Your task to perform on an android device: Search for pizza restaurants on Maps Image 0: 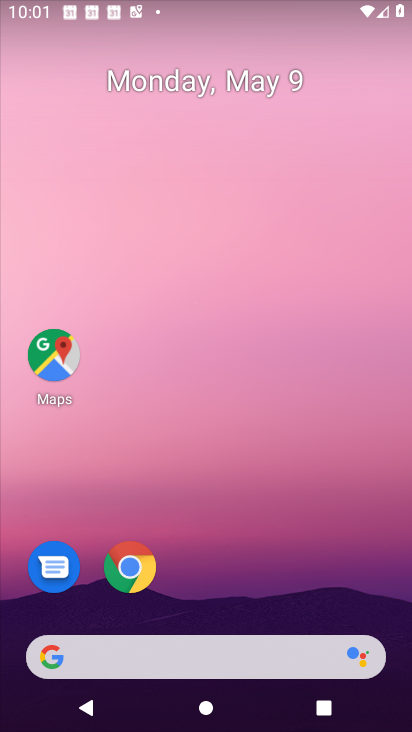
Step 0: click (37, 359)
Your task to perform on an android device: Search for pizza restaurants on Maps Image 1: 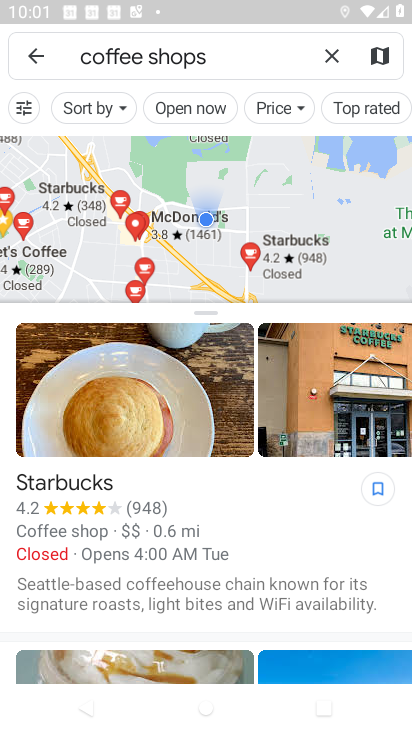
Step 1: click (339, 55)
Your task to perform on an android device: Search for pizza restaurants on Maps Image 2: 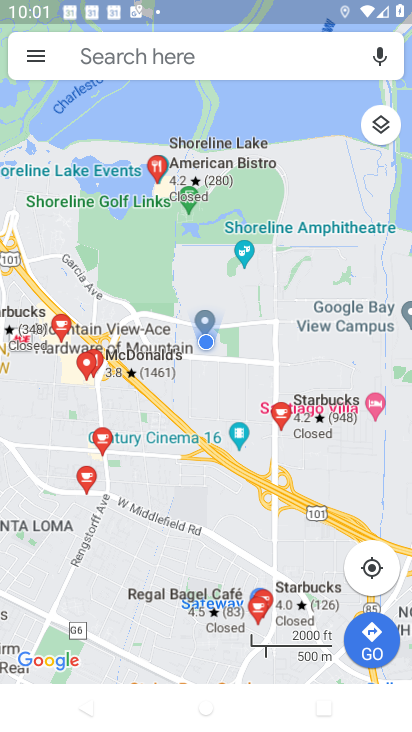
Step 2: click (243, 65)
Your task to perform on an android device: Search for pizza restaurants on Maps Image 3: 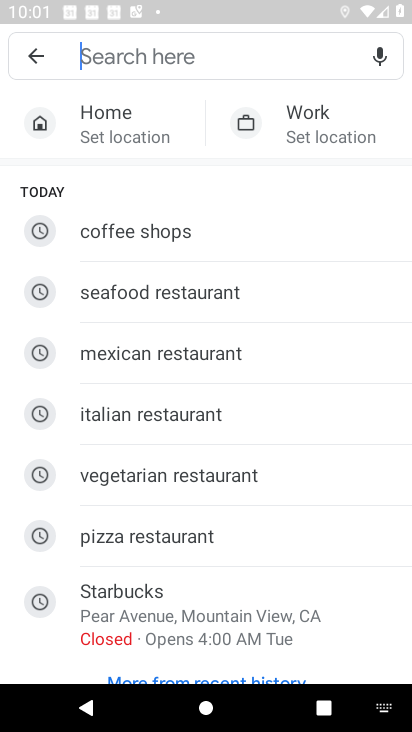
Step 3: click (179, 529)
Your task to perform on an android device: Search for pizza restaurants on Maps Image 4: 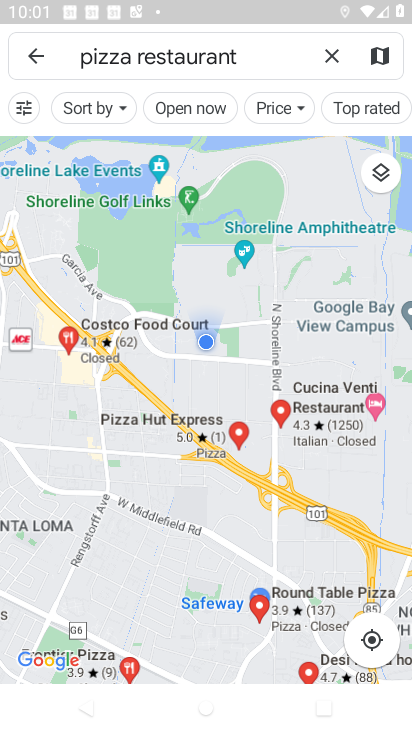
Step 4: task complete